Your task to perform on an android device: stop showing notifications on the lock screen Image 0: 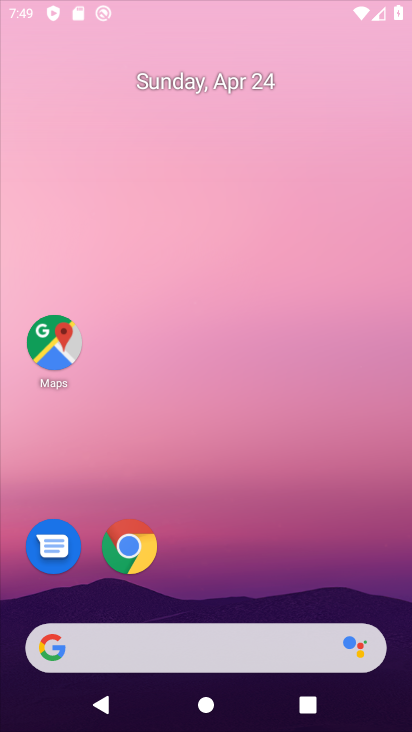
Step 0: click (221, 318)
Your task to perform on an android device: stop showing notifications on the lock screen Image 1: 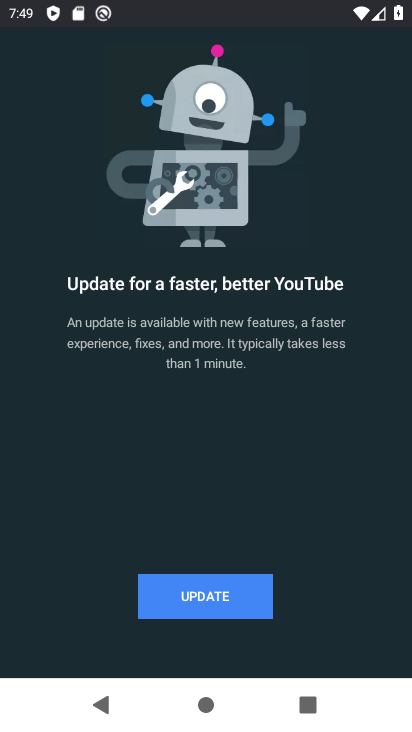
Step 1: drag from (231, 630) to (386, 594)
Your task to perform on an android device: stop showing notifications on the lock screen Image 2: 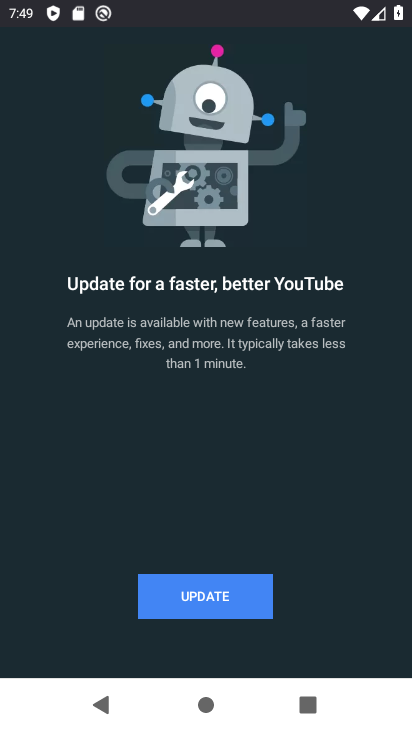
Step 2: press home button
Your task to perform on an android device: stop showing notifications on the lock screen Image 3: 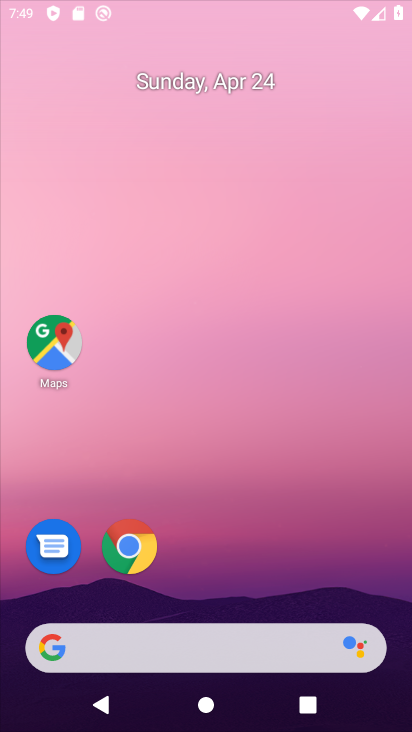
Step 3: drag from (185, 542) to (267, 14)
Your task to perform on an android device: stop showing notifications on the lock screen Image 4: 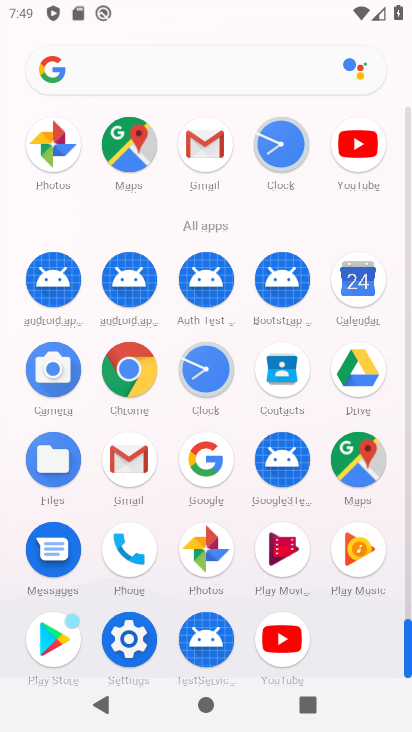
Step 4: click (133, 641)
Your task to perform on an android device: stop showing notifications on the lock screen Image 5: 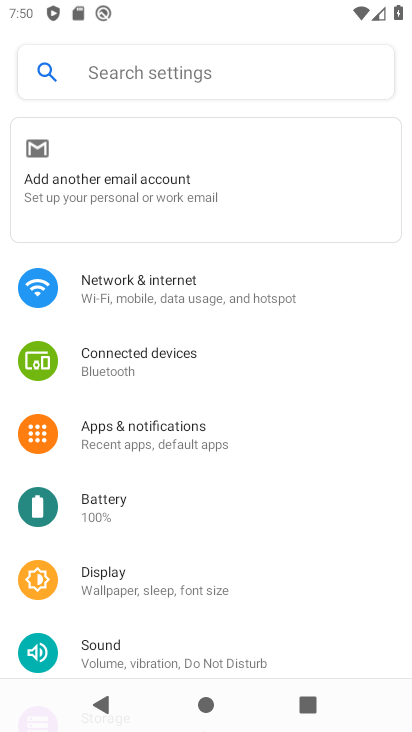
Step 5: click (116, 442)
Your task to perform on an android device: stop showing notifications on the lock screen Image 6: 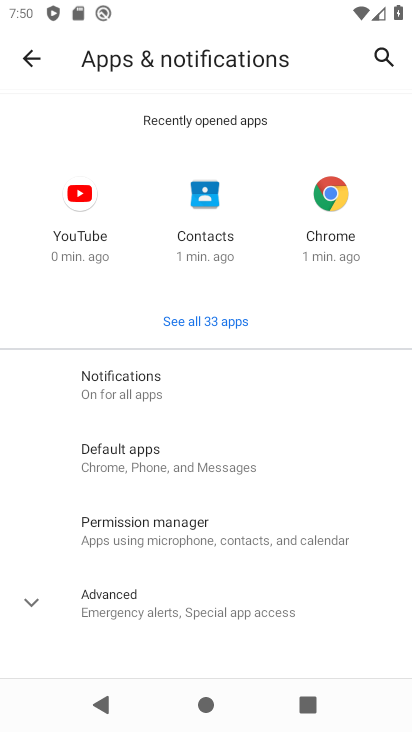
Step 6: click (158, 385)
Your task to perform on an android device: stop showing notifications on the lock screen Image 7: 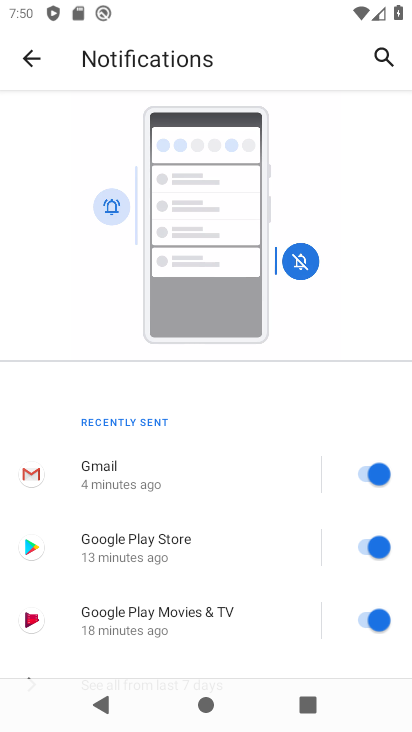
Step 7: drag from (211, 578) to (322, 89)
Your task to perform on an android device: stop showing notifications on the lock screen Image 8: 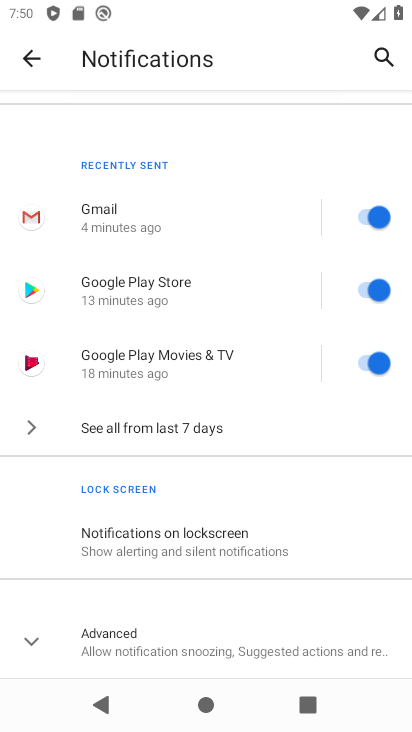
Step 8: click (195, 541)
Your task to perform on an android device: stop showing notifications on the lock screen Image 9: 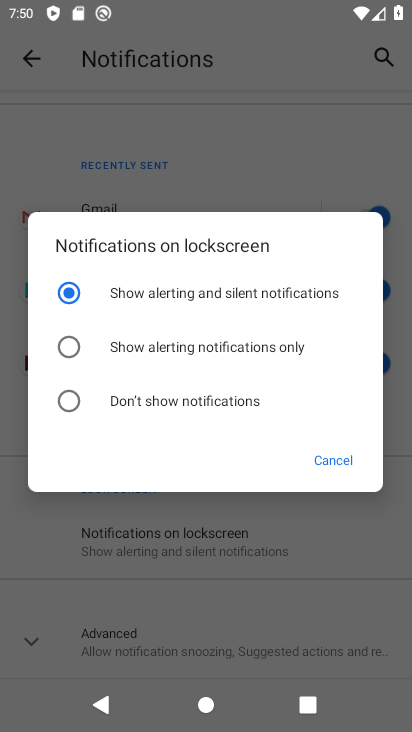
Step 9: click (99, 347)
Your task to perform on an android device: stop showing notifications on the lock screen Image 10: 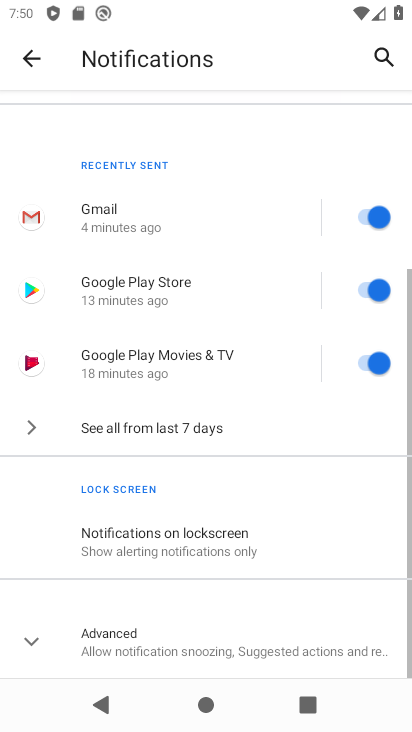
Step 10: task complete